Your task to perform on an android device: turn notification dots on Image 0: 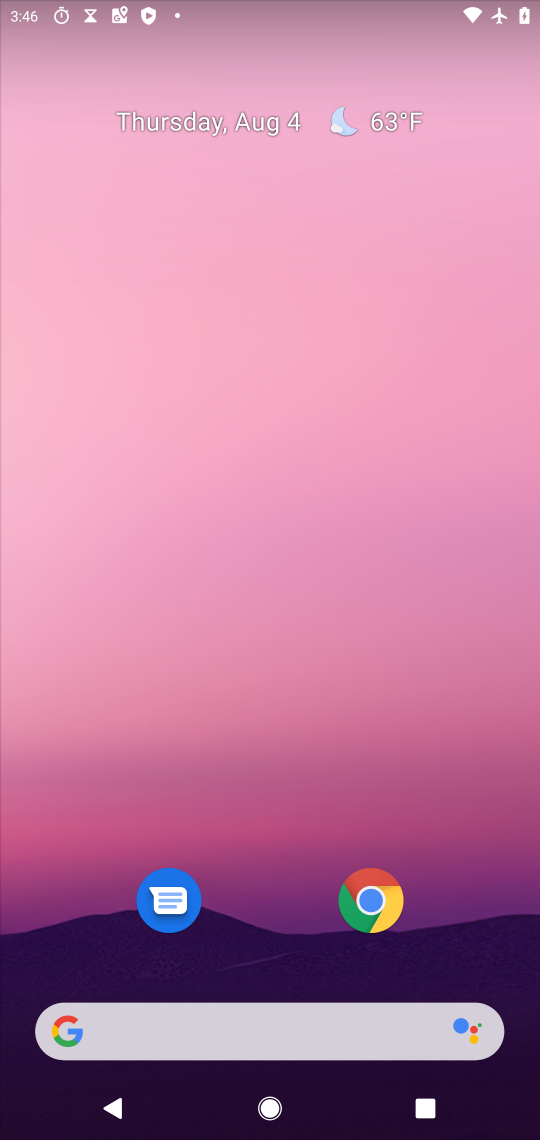
Step 0: drag from (489, 962) to (251, 116)
Your task to perform on an android device: turn notification dots on Image 1: 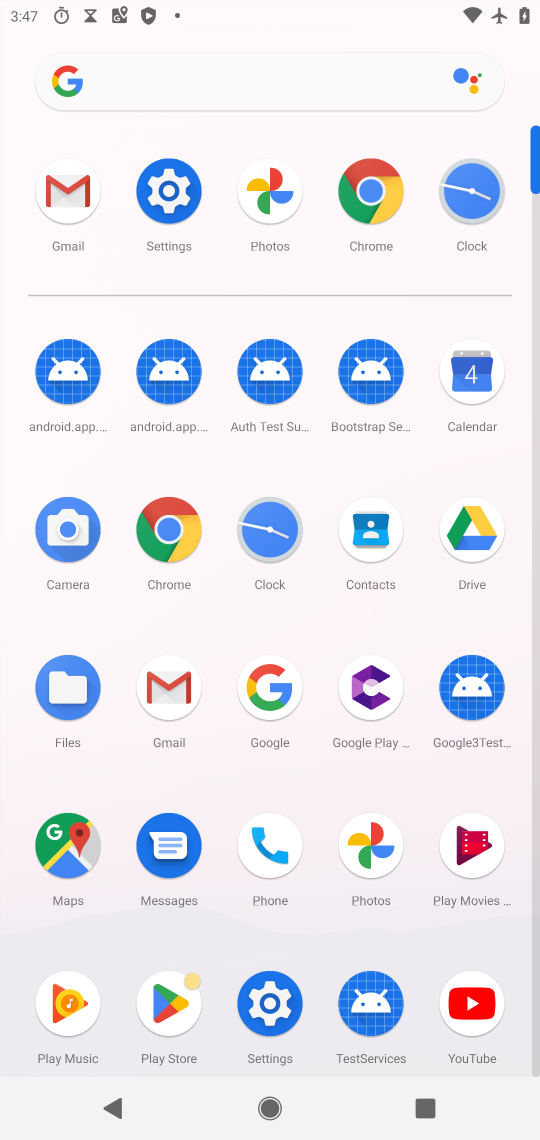
Step 1: click (179, 198)
Your task to perform on an android device: turn notification dots on Image 2: 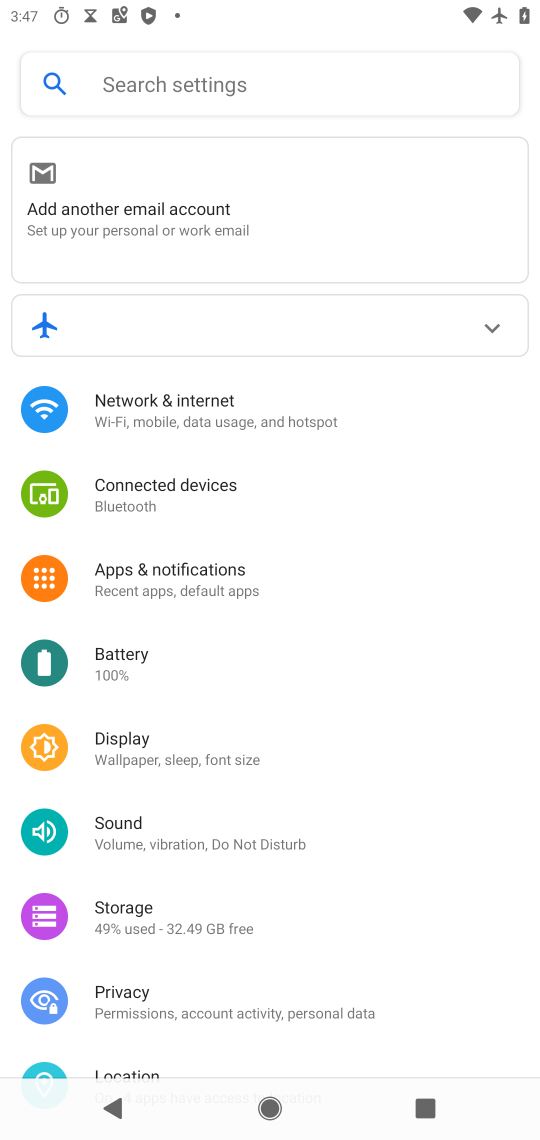
Step 2: click (270, 588)
Your task to perform on an android device: turn notification dots on Image 3: 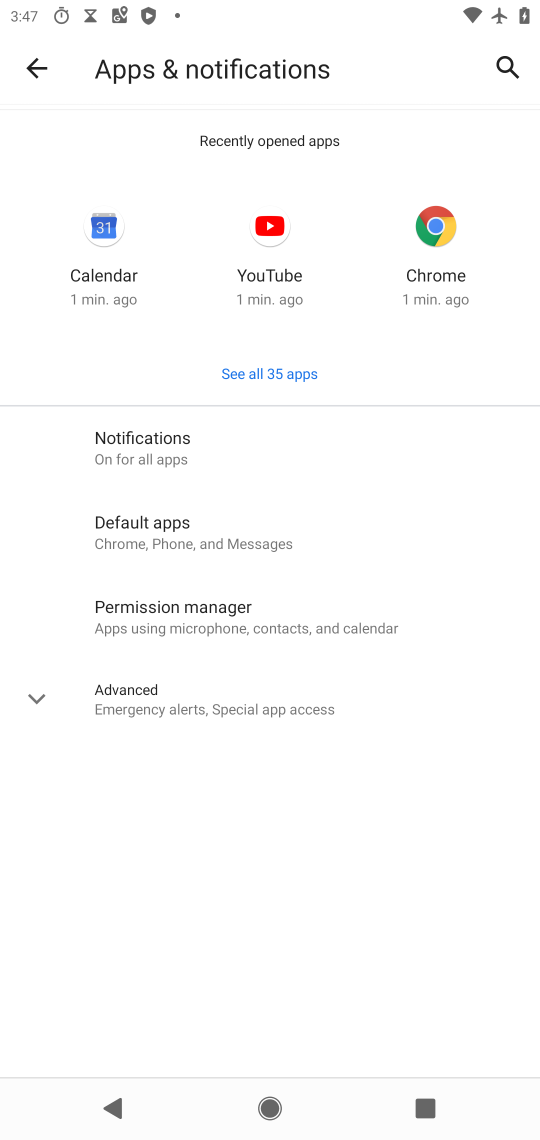
Step 3: click (315, 456)
Your task to perform on an android device: turn notification dots on Image 4: 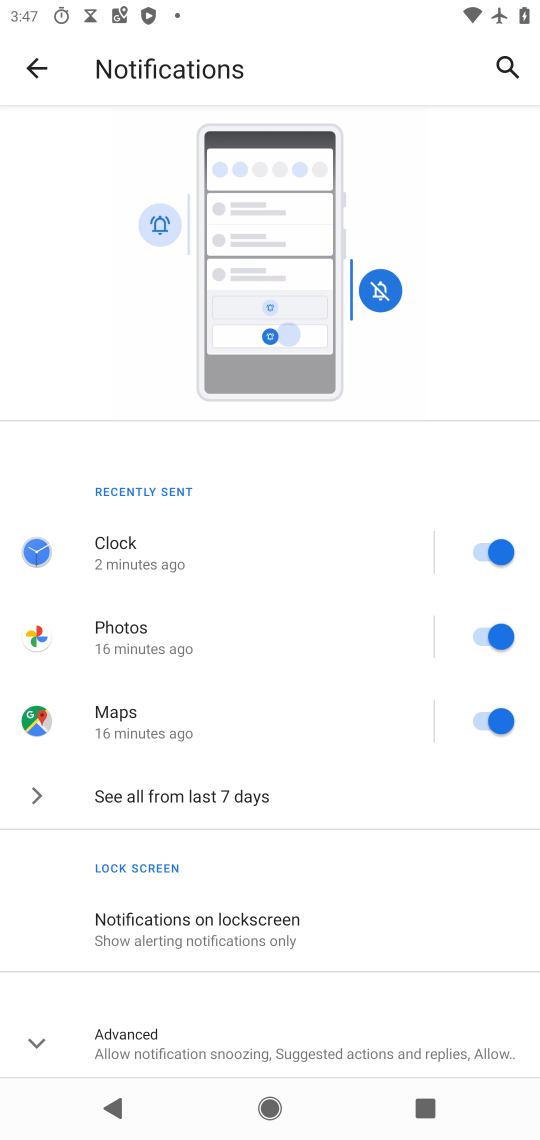
Step 4: drag from (416, 950) to (285, 409)
Your task to perform on an android device: turn notification dots on Image 5: 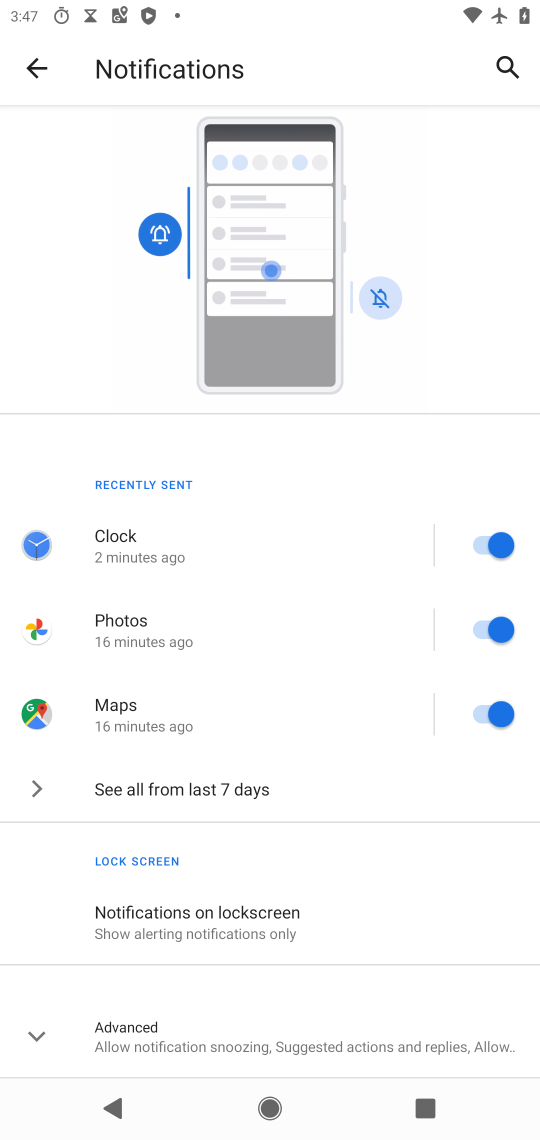
Step 5: click (381, 1033)
Your task to perform on an android device: turn notification dots on Image 6: 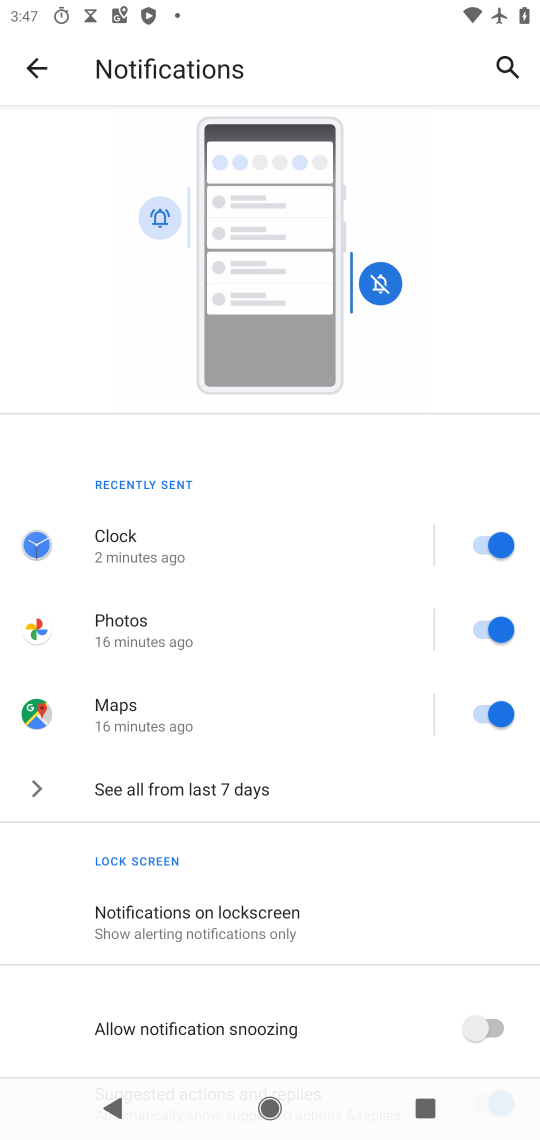
Step 6: task complete